Your task to perform on an android device: When is my next meeting? Image 0: 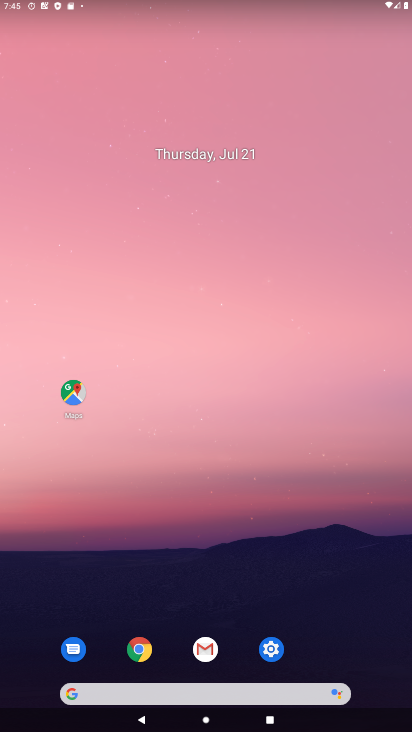
Step 0: drag from (226, 695) to (191, 133)
Your task to perform on an android device: When is my next meeting? Image 1: 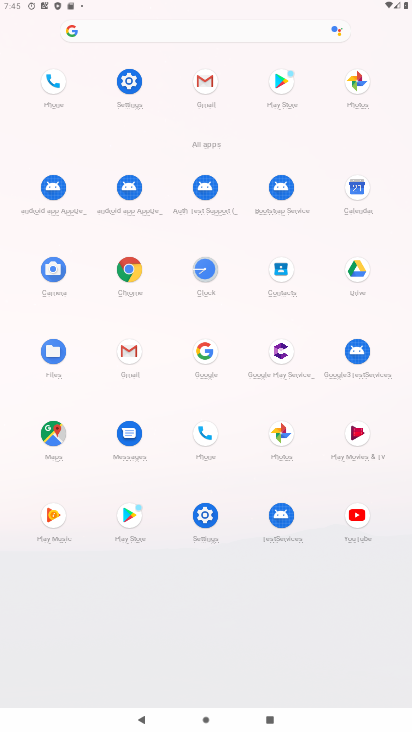
Step 1: click (349, 196)
Your task to perform on an android device: When is my next meeting? Image 2: 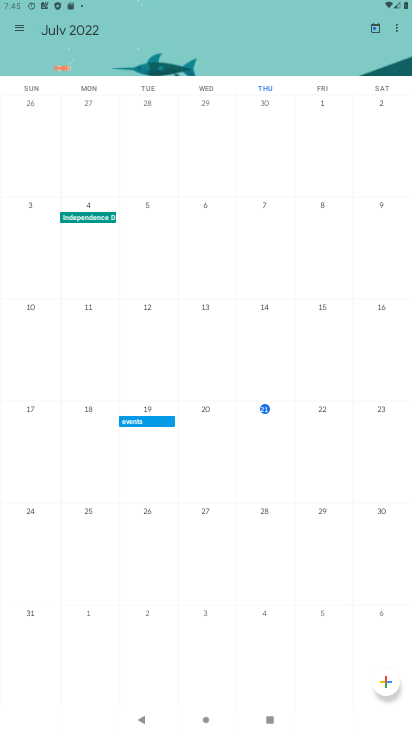
Step 2: click (273, 414)
Your task to perform on an android device: When is my next meeting? Image 3: 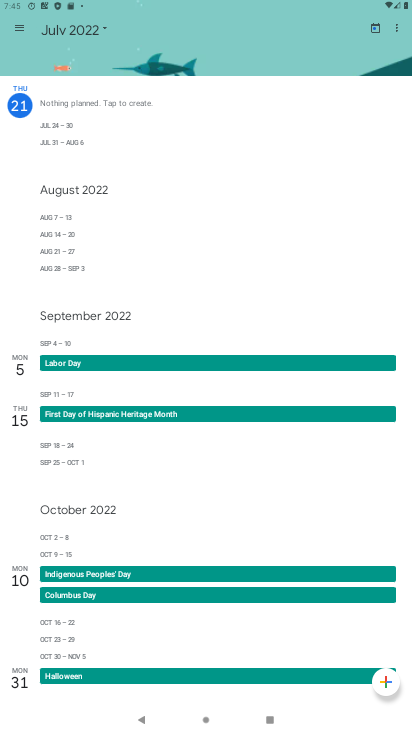
Step 3: task complete